Your task to perform on an android device: Open settings on Google Maps Image 0: 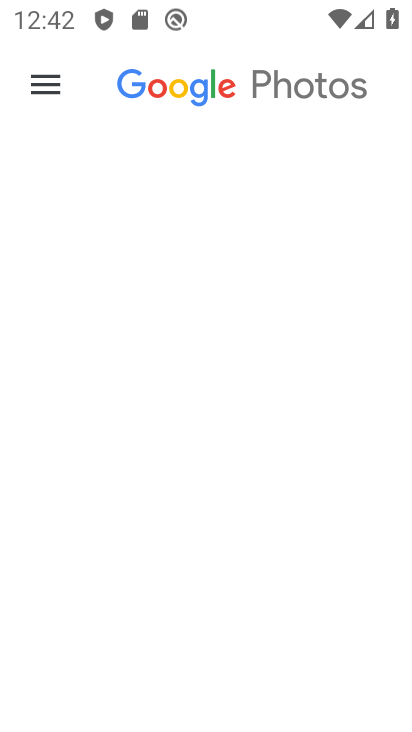
Step 0: press home button
Your task to perform on an android device: Open settings on Google Maps Image 1: 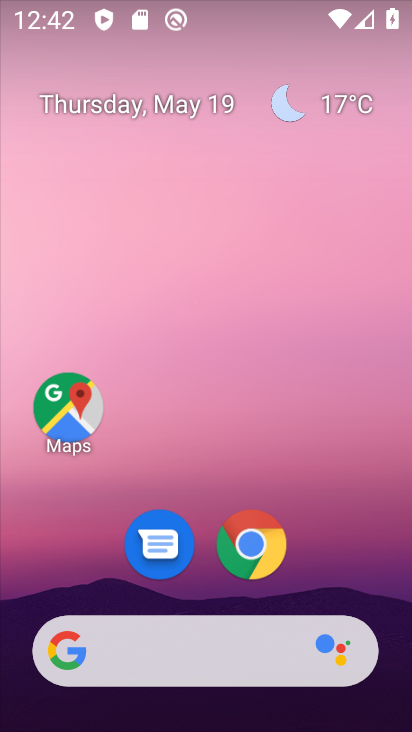
Step 1: drag from (245, 709) to (253, 169)
Your task to perform on an android device: Open settings on Google Maps Image 2: 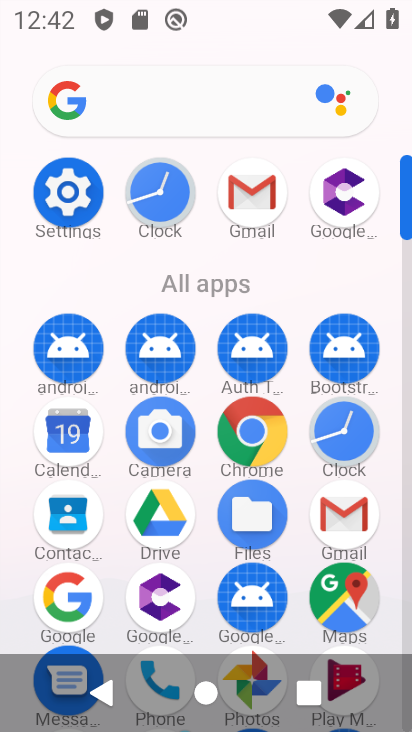
Step 2: click (350, 592)
Your task to perform on an android device: Open settings on Google Maps Image 3: 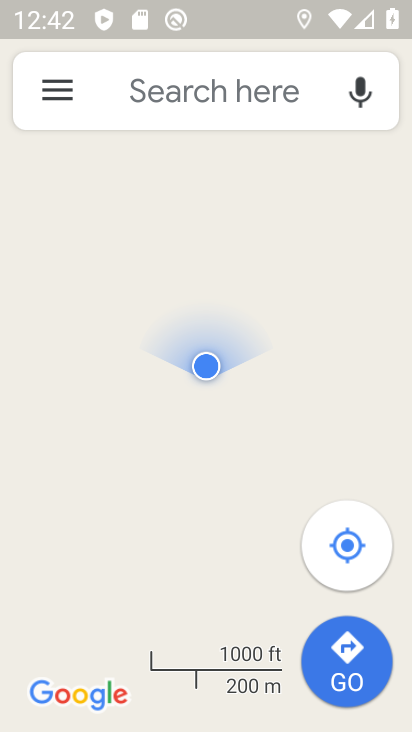
Step 3: click (53, 90)
Your task to perform on an android device: Open settings on Google Maps Image 4: 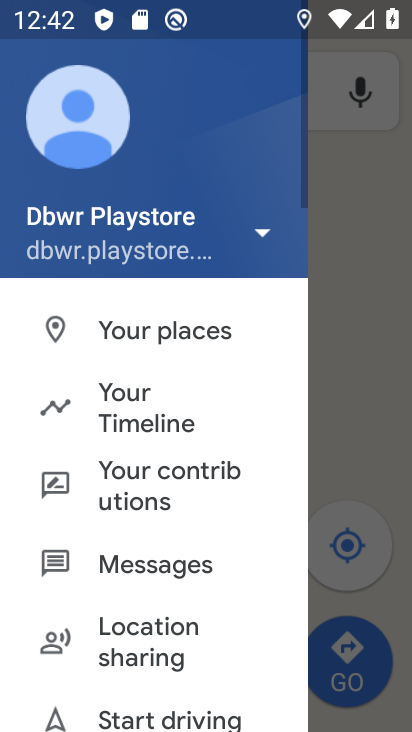
Step 4: drag from (144, 676) to (144, 250)
Your task to perform on an android device: Open settings on Google Maps Image 5: 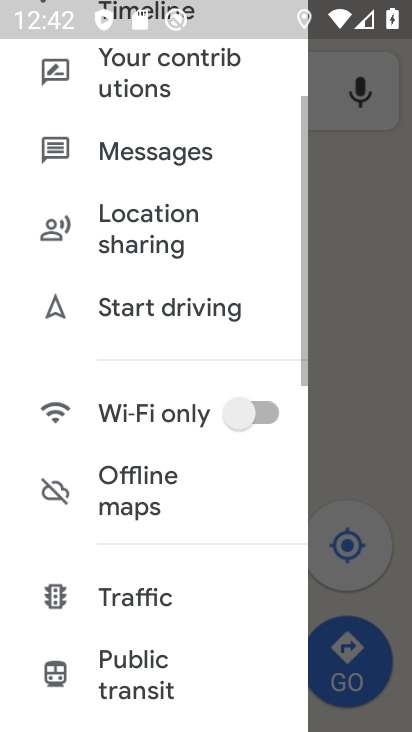
Step 5: drag from (121, 672) to (135, 231)
Your task to perform on an android device: Open settings on Google Maps Image 6: 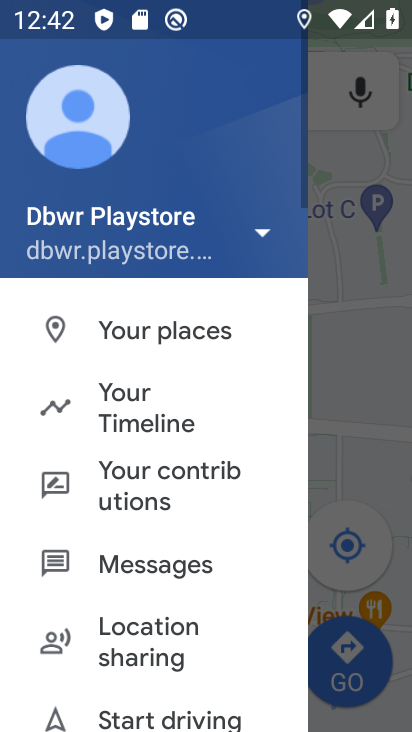
Step 6: drag from (136, 620) to (142, 263)
Your task to perform on an android device: Open settings on Google Maps Image 7: 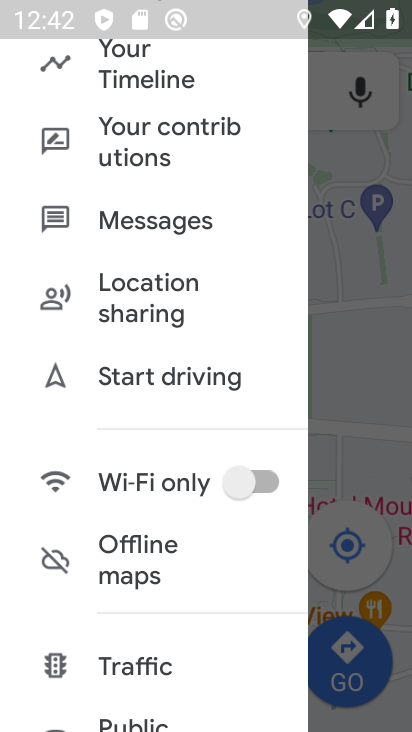
Step 7: drag from (168, 645) to (174, 289)
Your task to perform on an android device: Open settings on Google Maps Image 8: 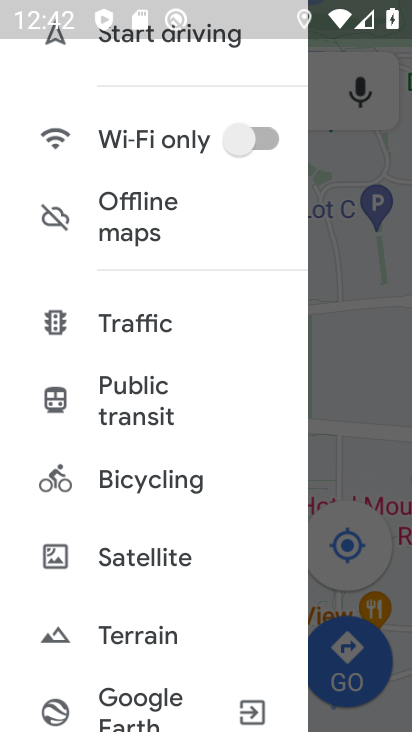
Step 8: drag from (150, 666) to (172, 259)
Your task to perform on an android device: Open settings on Google Maps Image 9: 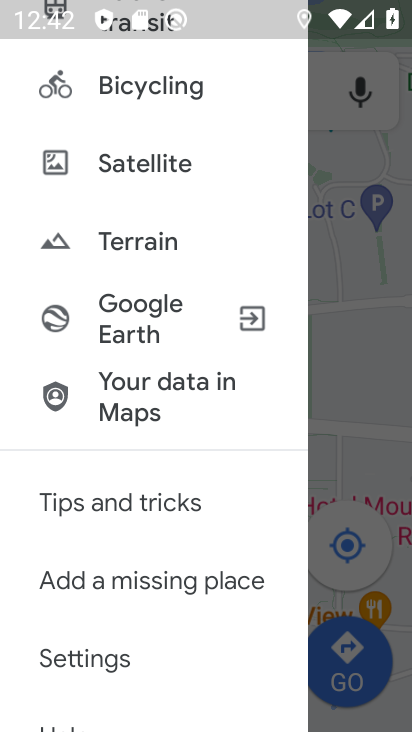
Step 9: click (93, 655)
Your task to perform on an android device: Open settings on Google Maps Image 10: 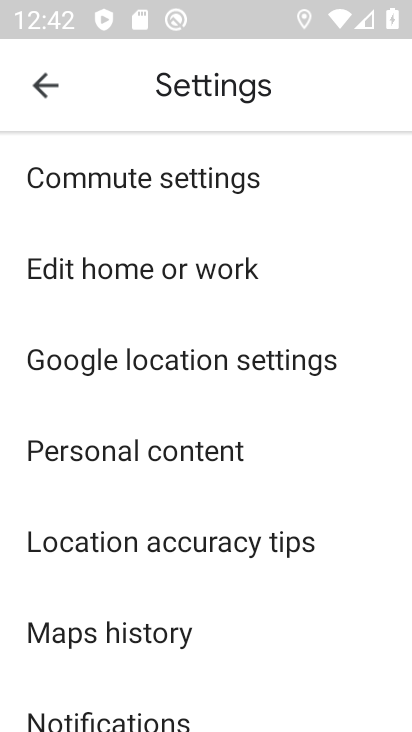
Step 10: task complete